Your task to perform on an android device: open chrome privacy settings Image 0: 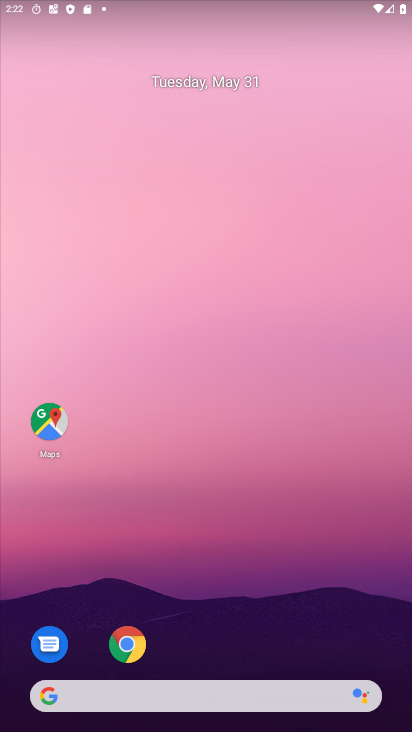
Step 0: click (131, 642)
Your task to perform on an android device: open chrome privacy settings Image 1: 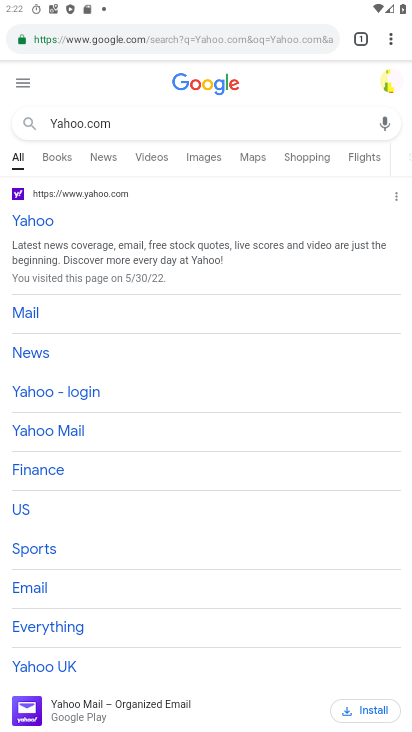
Step 1: click (389, 31)
Your task to perform on an android device: open chrome privacy settings Image 2: 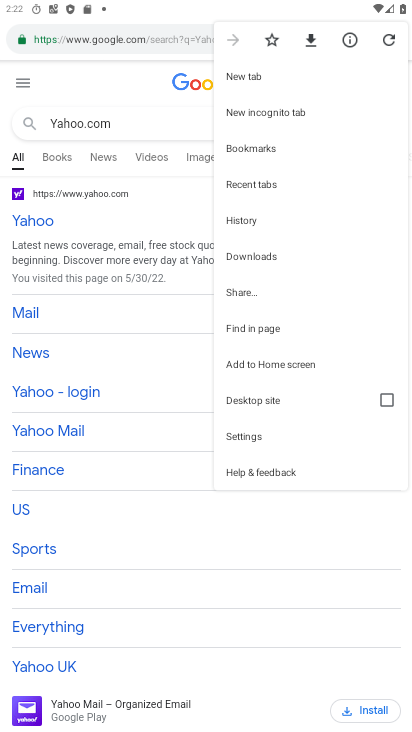
Step 2: click (235, 436)
Your task to perform on an android device: open chrome privacy settings Image 3: 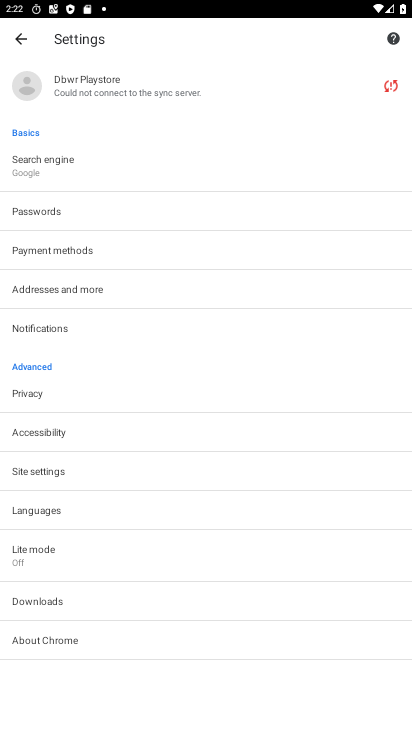
Step 3: click (52, 394)
Your task to perform on an android device: open chrome privacy settings Image 4: 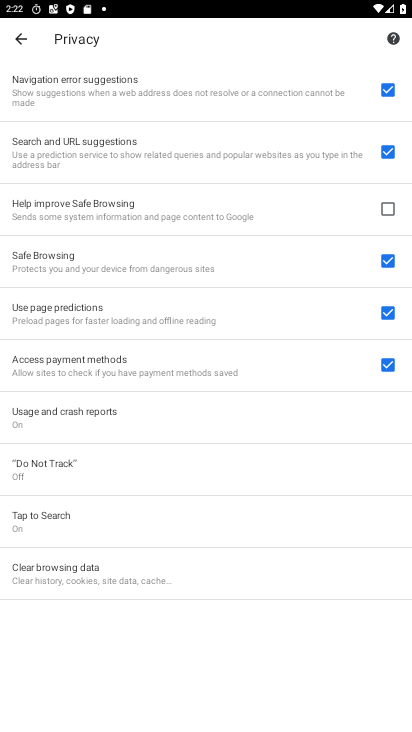
Step 4: task complete